Your task to perform on an android device: choose inbox layout in the gmail app Image 0: 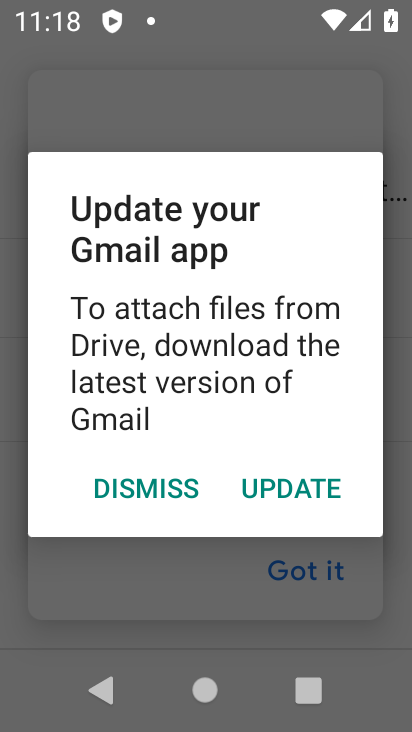
Step 0: press home button
Your task to perform on an android device: choose inbox layout in the gmail app Image 1: 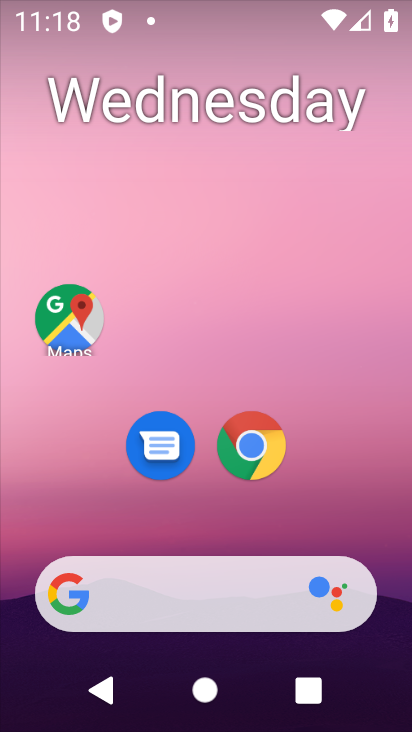
Step 1: drag from (357, 510) to (304, 137)
Your task to perform on an android device: choose inbox layout in the gmail app Image 2: 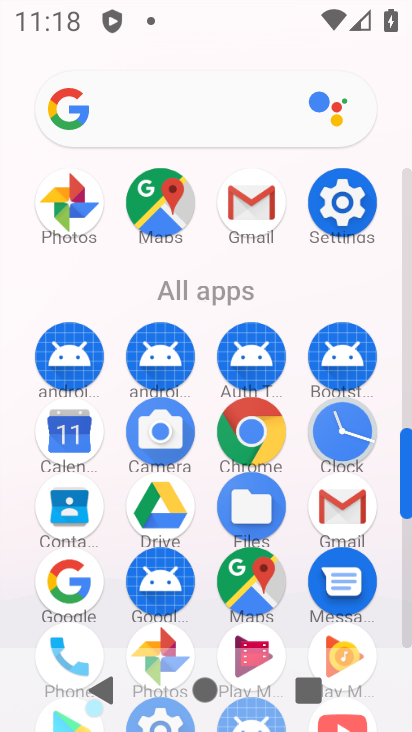
Step 2: click (250, 220)
Your task to perform on an android device: choose inbox layout in the gmail app Image 3: 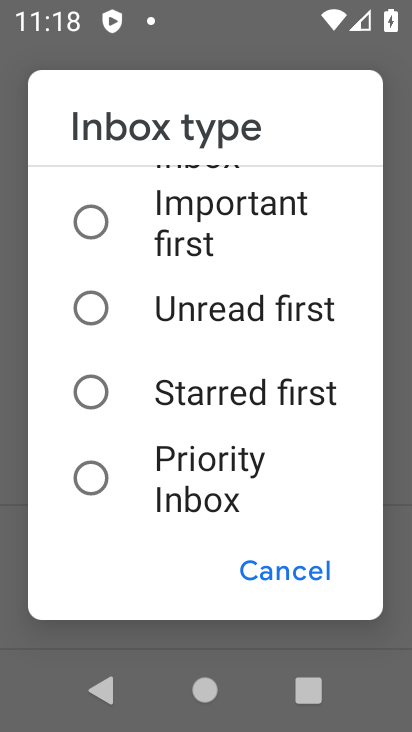
Step 3: click (294, 569)
Your task to perform on an android device: choose inbox layout in the gmail app Image 4: 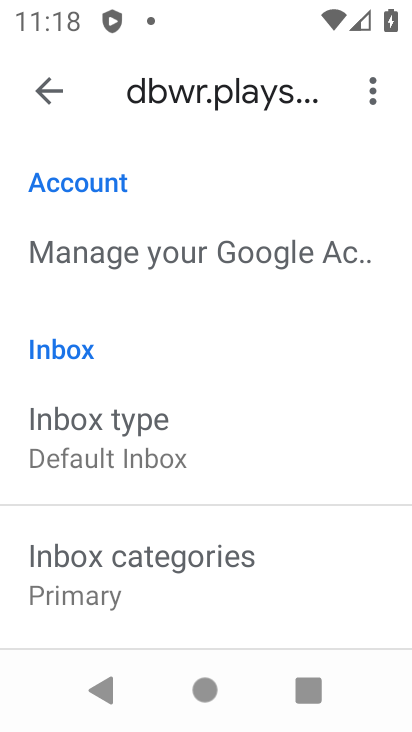
Step 4: drag from (236, 559) to (219, 261)
Your task to perform on an android device: choose inbox layout in the gmail app Image 5: 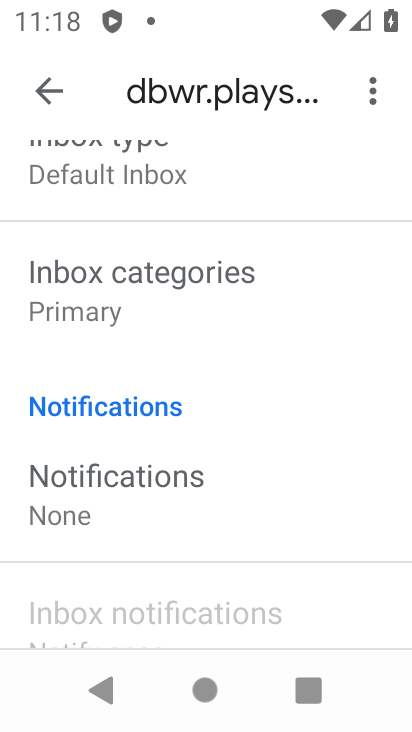
Step 5: drag from (280, 227) to (323, 550)
Your task to perform on an android device: choose inbox layout in the gmail app Image 6: 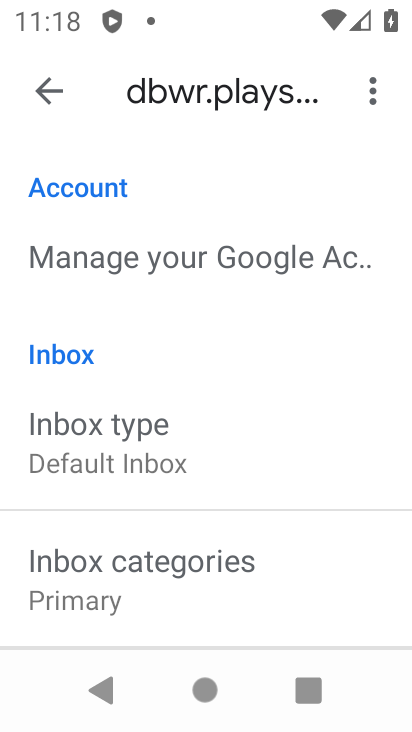
Step 6: click (55, 85)
Your task to perform on an android device: choose inbox layout in the gmail app Image 7: 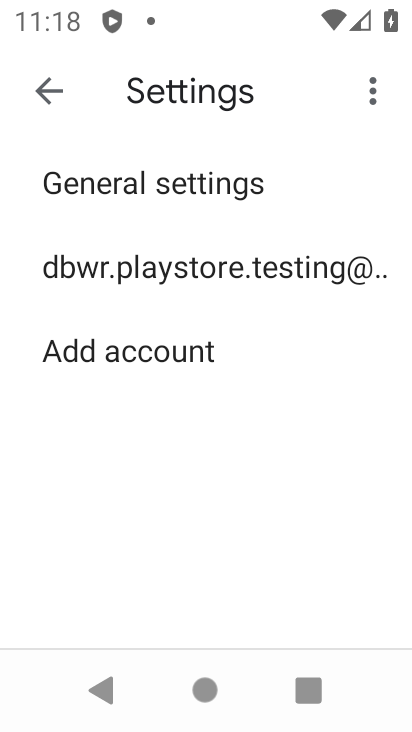
Step 7: click (113, 180)
Your task to perform on an android device: choose inbox layout in the gmail app Image 8: 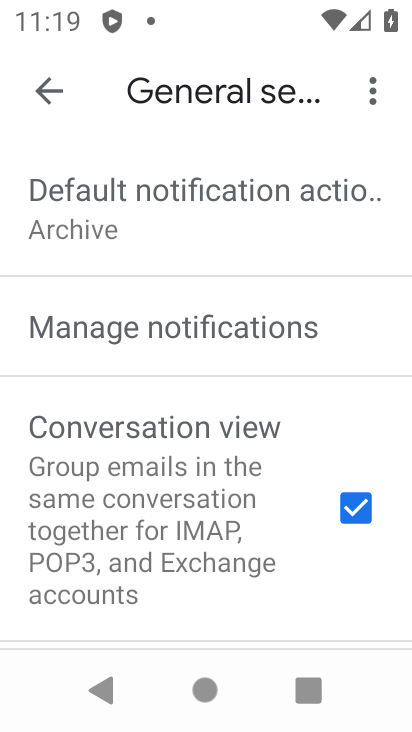
Step 8: drag from (204, 566) to (245, 175)
Your task to perform on an android device: choose inbox layout in the gmail app Image 9: 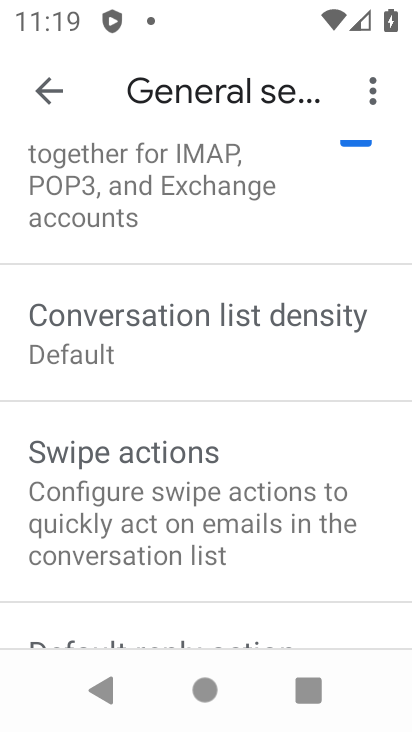
Step 9: drag from (267, 536) to (251, 91)
Your task to perform on an android device: choose inbox layout in the gmail app Image 10: 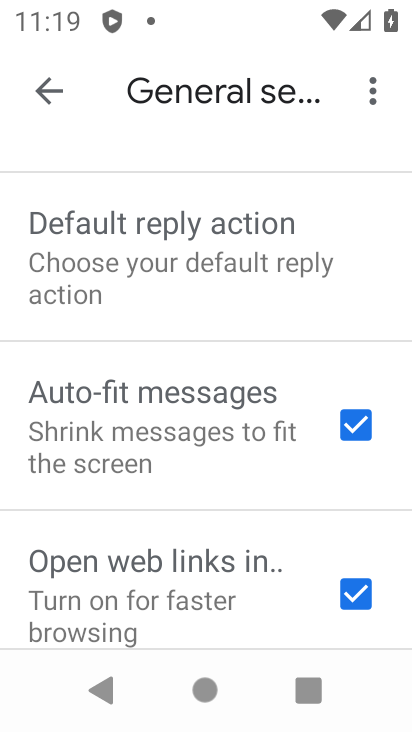
Step 10: drag from (230, 602) to (160, 147)
Your task to perform on an android device: choose inbox layout in the gmail app Image 11: 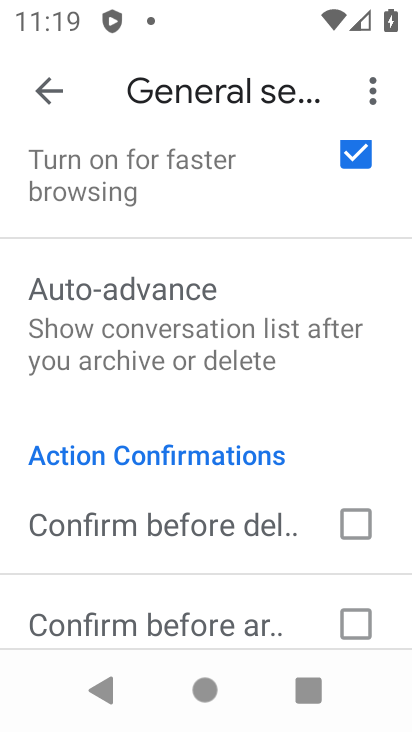
Step 11: click (43, 85)
Your task to perform on an android device: choose inbox layout in the gmail app Image 12: 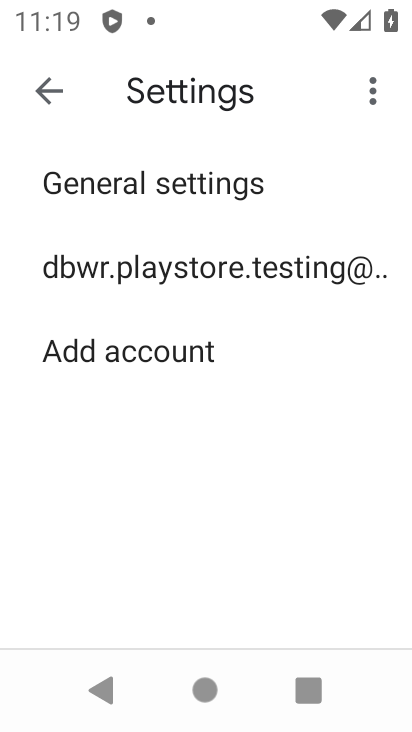
Step 12: click (172, 265)
Your task to perform on an android device: choose inbox layout in the gmail app Image 13: 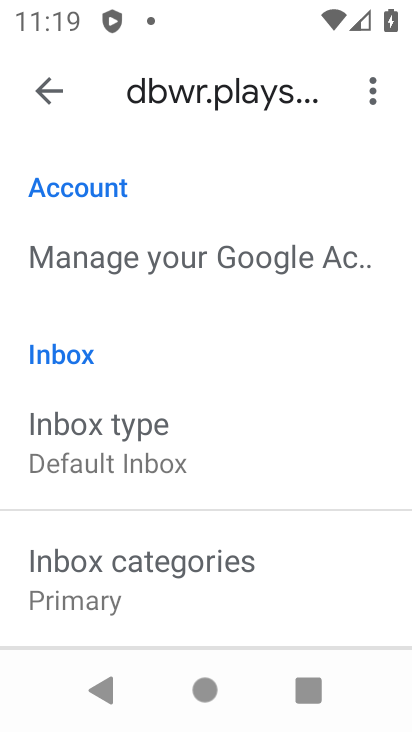
Step 13: drag from (275, 575) to (248, 224)
Your task to perform on an android device: choose inbox layout in the gmail app Image 14: 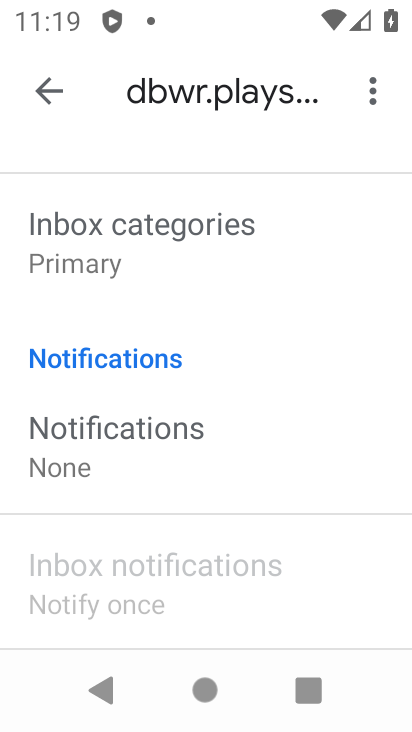
Step 14: drag from (270, 258) to (292, 556)
Your task to perform on an android device: choose inbox layout in the gmail app Image 15: 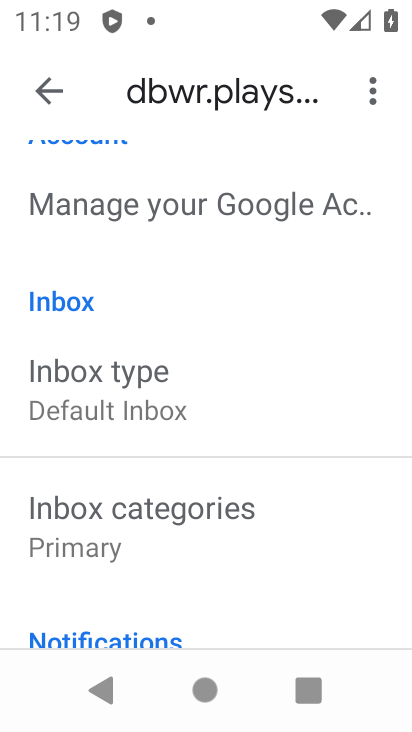
Step 15: click (228, 383)
Your task to perform on an android device: choose inbox layout in the gmail app Image 16: 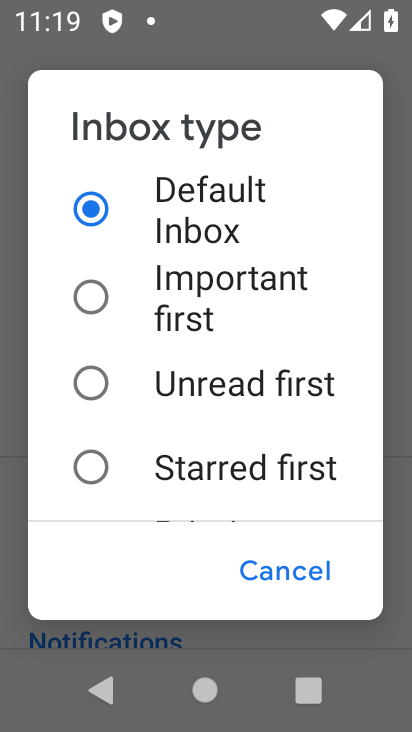
Step 16: click (81, 295)
Your task to perform on an android device: choose inbox layout in the gmail app Image 17: 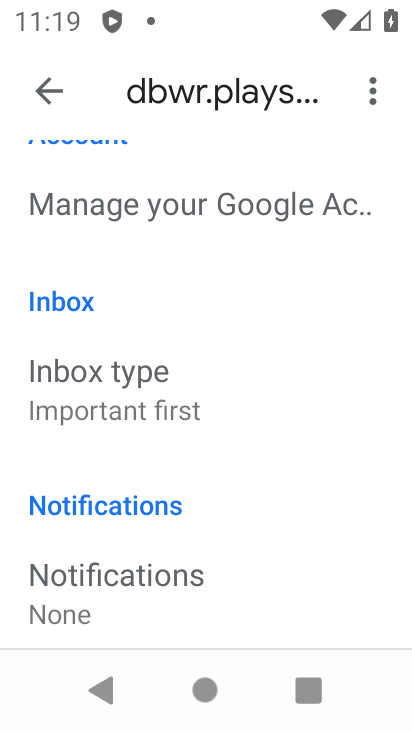
Step 17: task complete